Your task to perform on an android device: change the upload size in google photos Image 0: 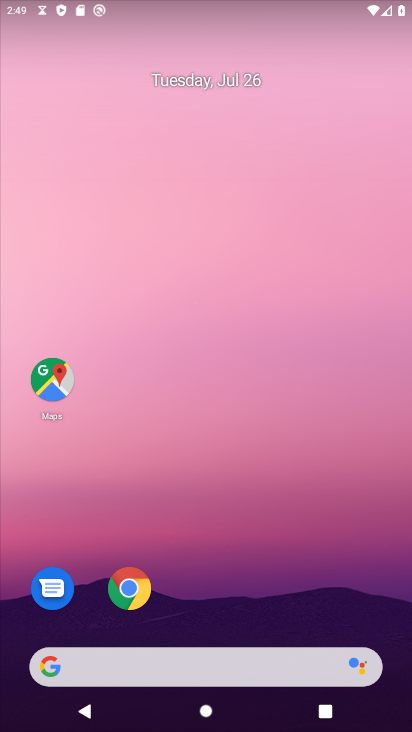
Step 0: drag from (244, 520) to (271, 13)
Your task to perform on an android device: change the upload size in google photos Image 1: 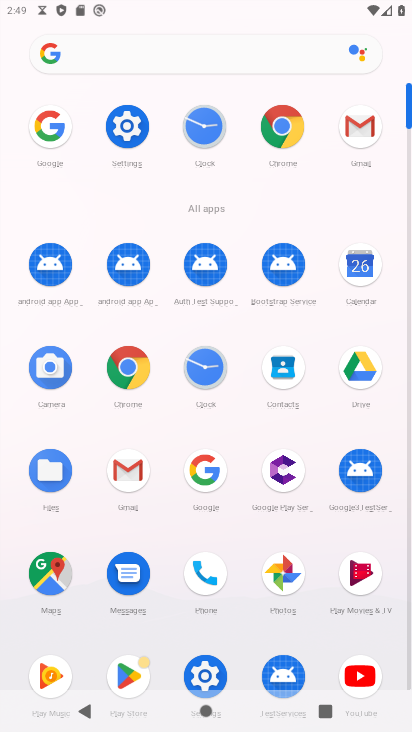
Step 1: click (279, 576)
Your task to perform on an android device: change the upload size in google photos Image 2: 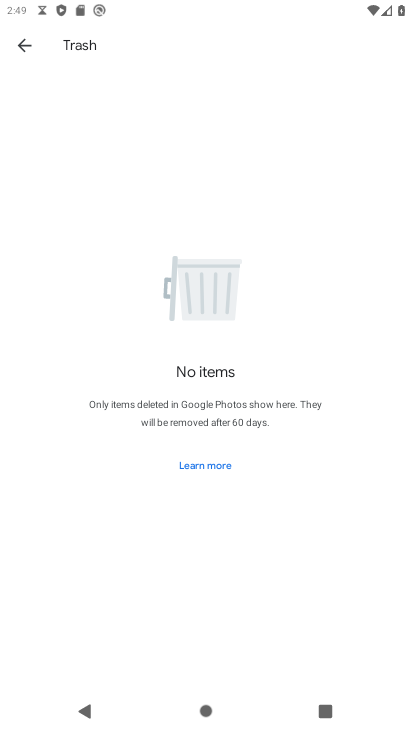
Step 2: click (24, 36)
Your task to perform on an android device: change the upload size in google photos Image 3: 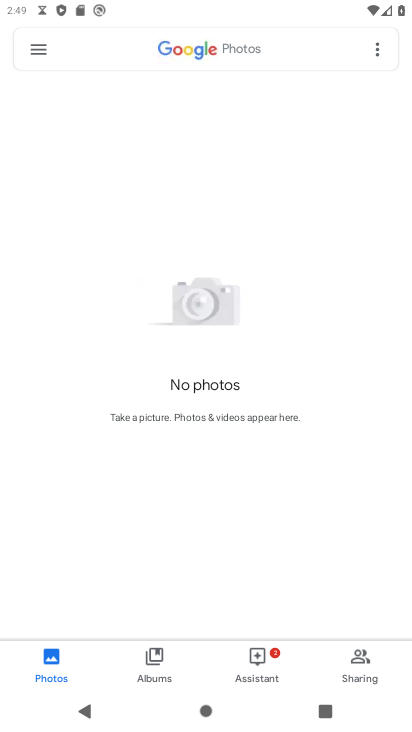
Step 3: click (50, 35)
Your task to perform on an android device: change the upload size in google photos Image 4: 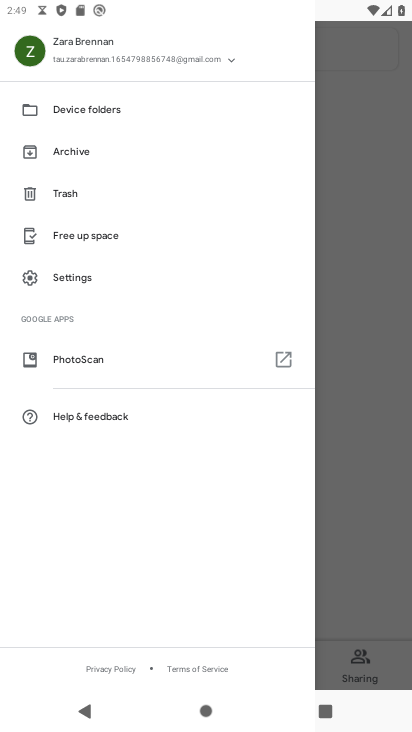
Step 4: click (61, 268)
Your task to perform on an android device: change the upload size in google photos Image 5: 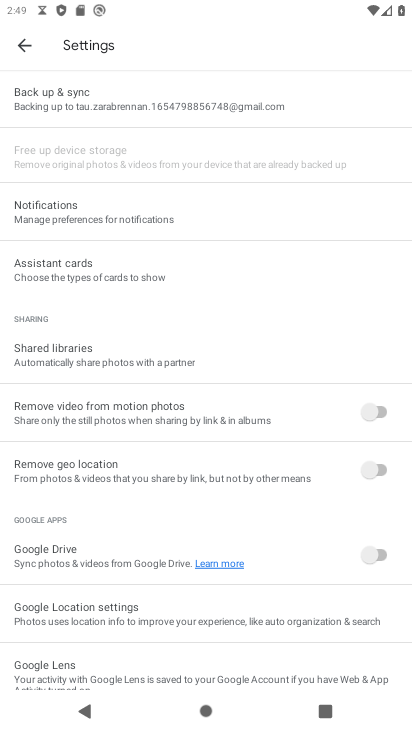
Step 5: click (84, 92)
Your task to perform on an android device: change the upload size in google photos Image 6: 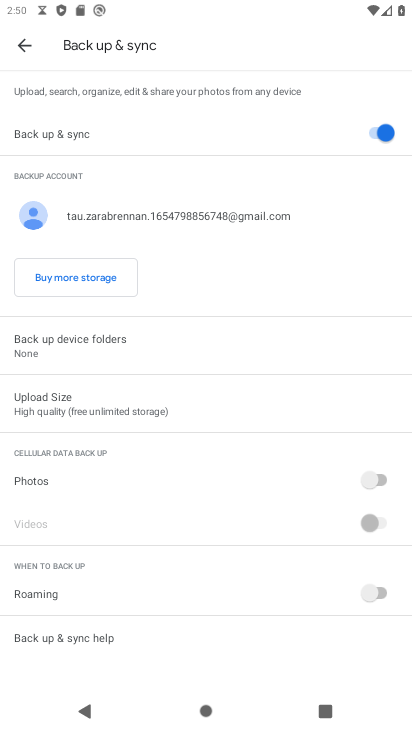
Step 6: click (53, 409)
Your task to perform on an android device: change the upload size in google photos Image 7: 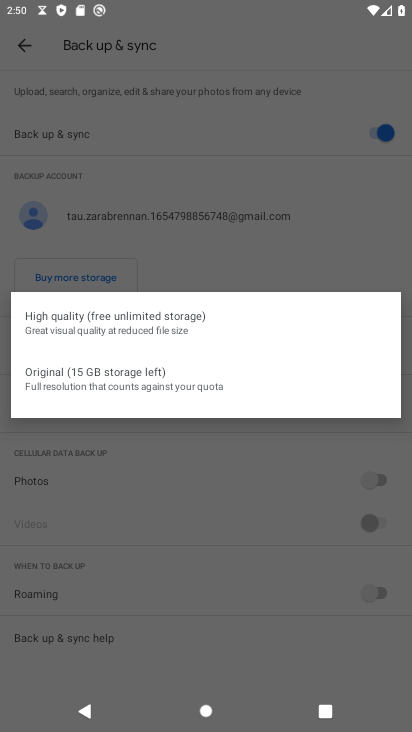
Step 7: click (60, 373)
Your task to perform on an android device: change the upload size in google photos Image 8: 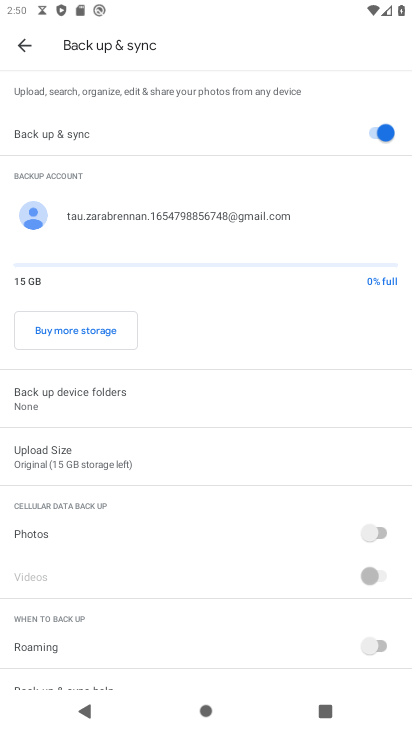
Step 8: task complete